Your task to perform on an android device: Open Reddit.com Image 0: 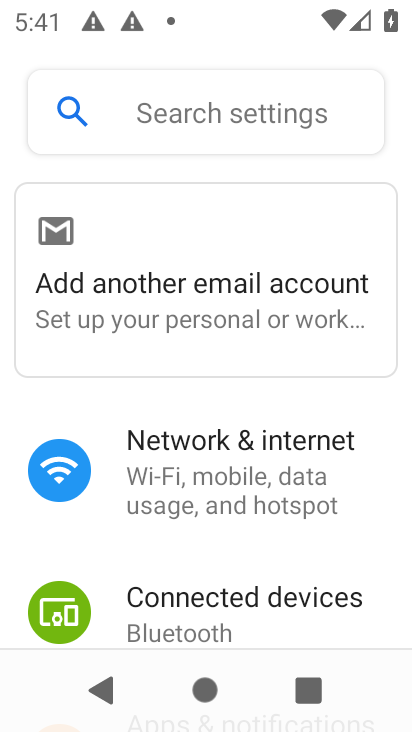
Step 0: press home button
Your task to perform on an android device: Open Reddit.com Image 1: 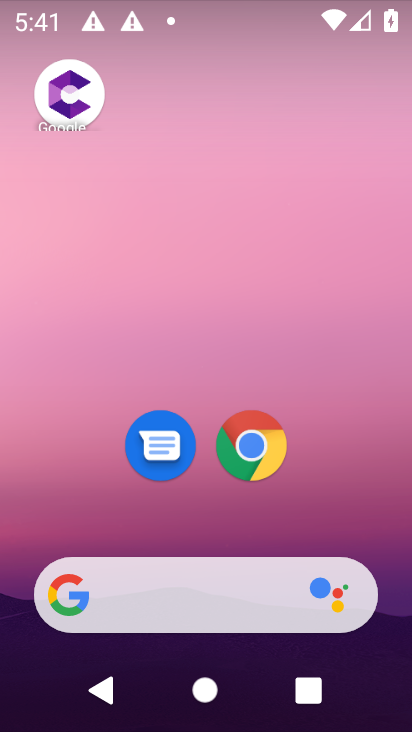
Step 1: click (249, 439)
Your task to perform on an android device: Open Reddit.com Image 2: 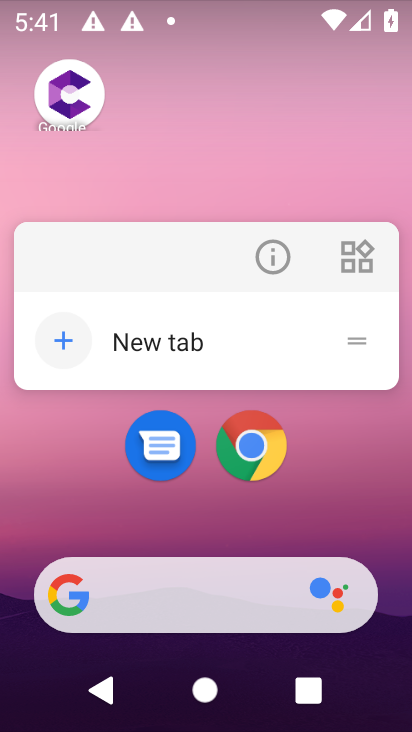
Step 2: click (249, 439)
Your task to perform on an android device: Open Reddit.com Image 3: 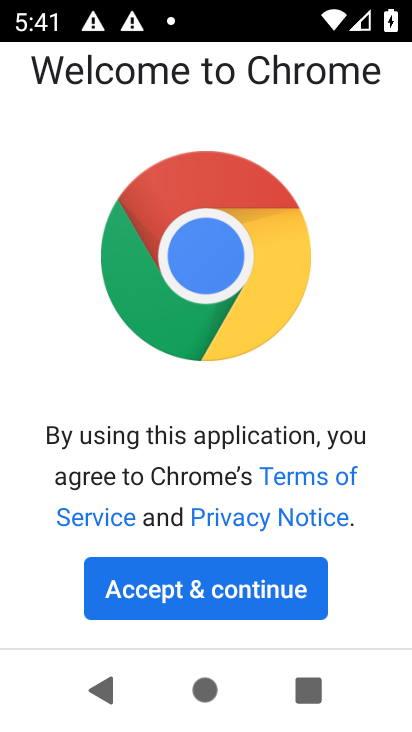
Step 3: click (206, 577)
Your task to perform on an android device: Open Reddit.com Image 4: 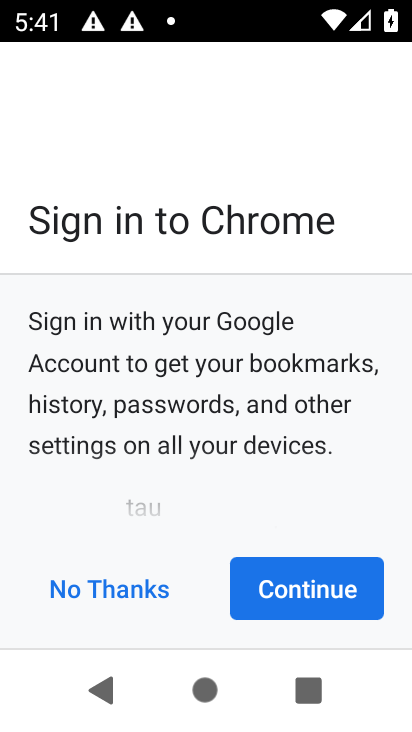
Step 4: click (275, 592)
Your task to perform on an android device: Open Reddit.com Image 5: 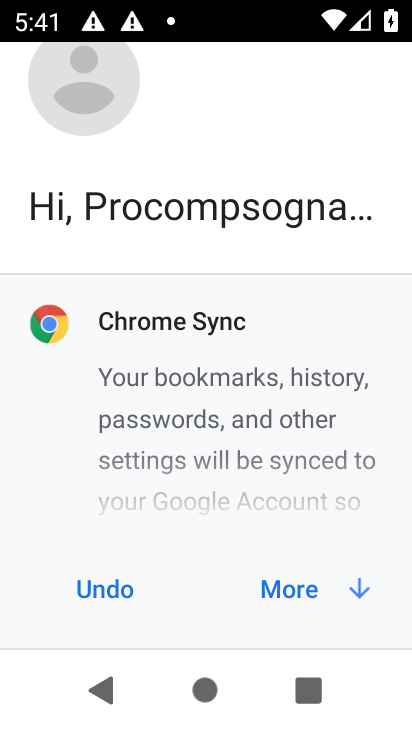
Step 5: click (275, 592)
Your task to perform on an android device: Open Reddit.com Image 6: 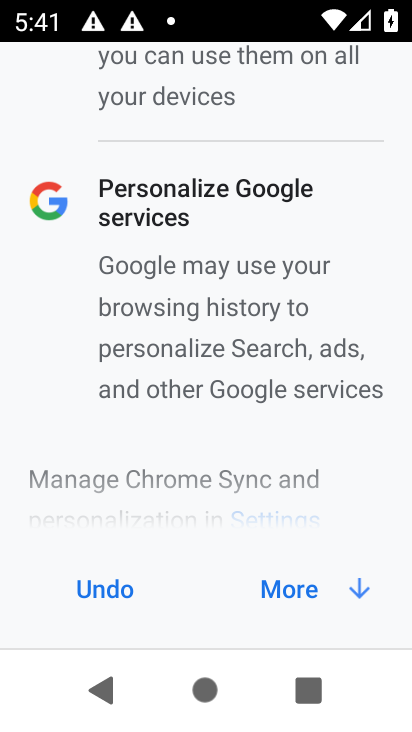
Step 6: click (275, 592)
Your task to perform on an android device: Open Reddit.com Image 7: 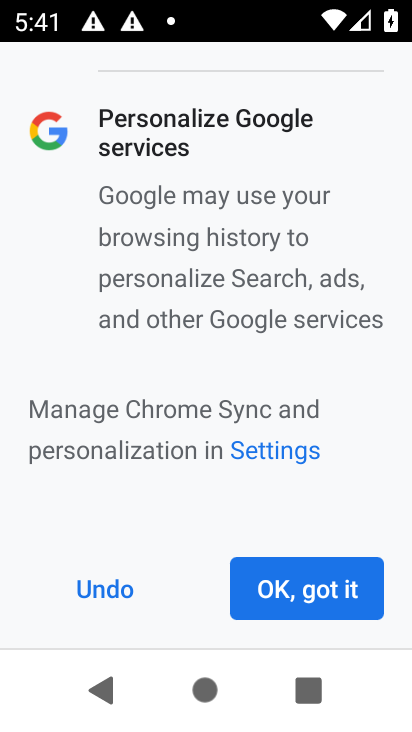
Step 7: click (275, 592)
Your task to perform on an android device: Open Reddit.com Image 8: 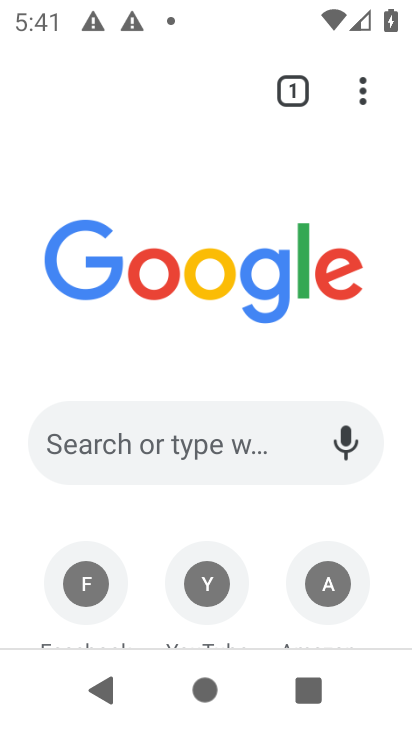
Step 8: click (292, 99)
Your task to perform on an android device: Open Reddit.com Image 9: 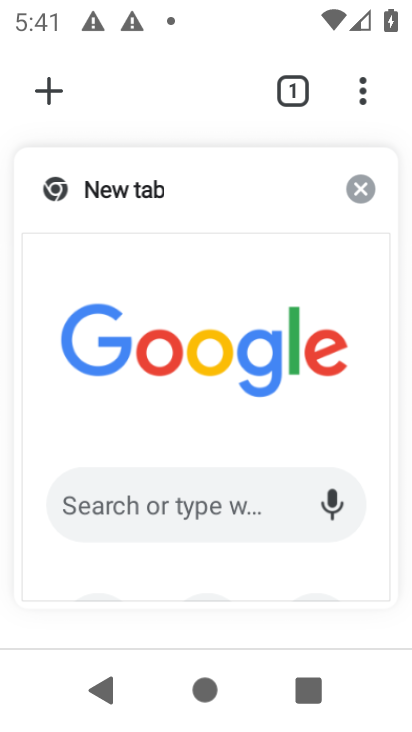
Step 9: click (204, 508)
Your task to perform on an android device: Open Reddit.com Image 10: 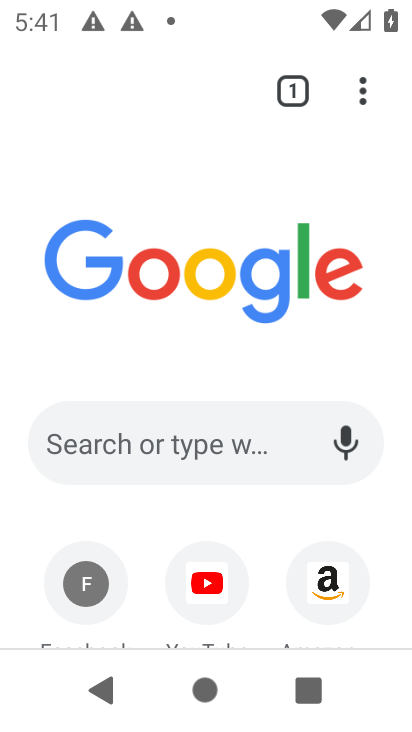
Step 10: click (133, 453)
Your task to perform on an android device: Open Reddit.com Image 11: 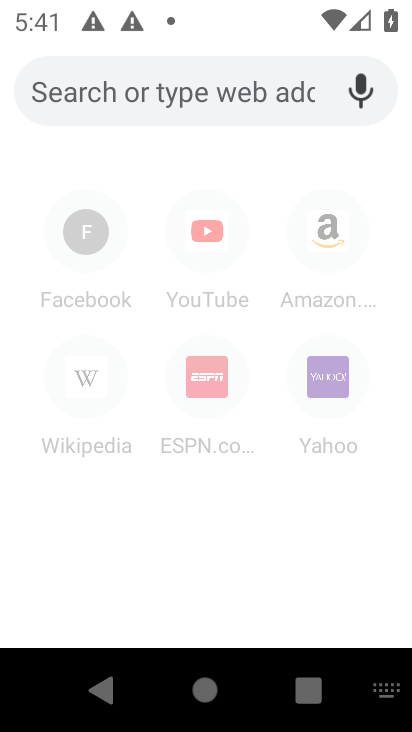
Step 11: type "Reddit.com"
Your task to perform on an android device: Open Reddit.com Image 12: 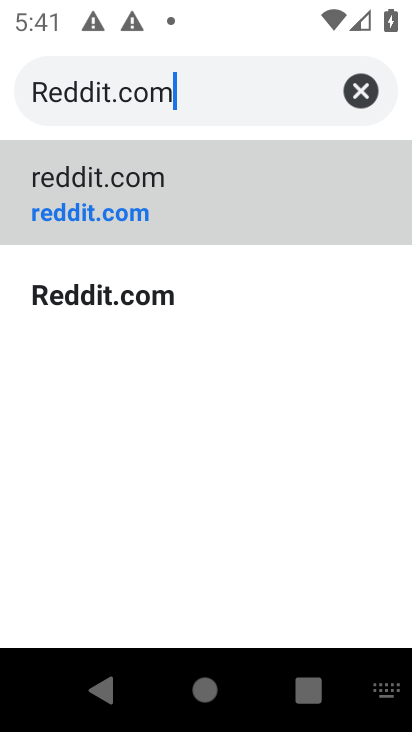
Step 12: type ""
Your task to perform on an android device: Open Reddit.com Image 13: 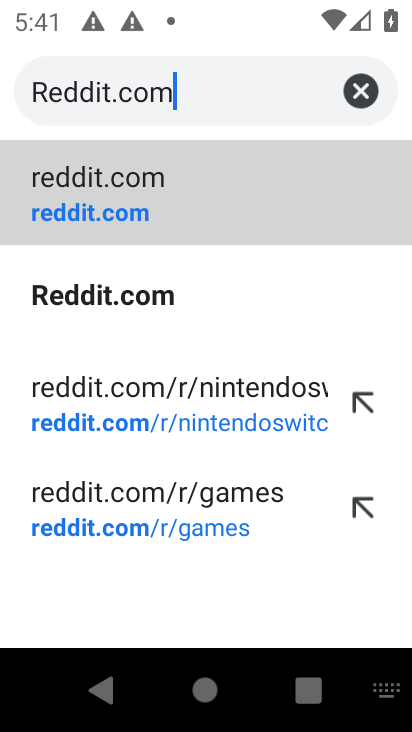
Step 13: click (255, 184)
Your task to perform on an android device: Open Reddit.com Image 14: 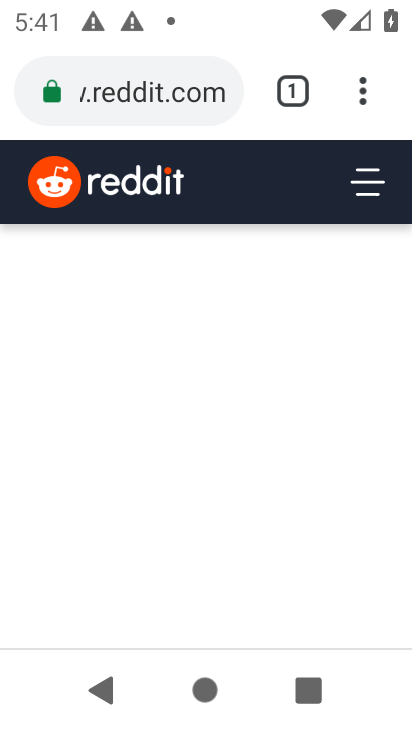
Step 14: task complete